Your task to perform on an android device: Open Yahoo.com Image 0: 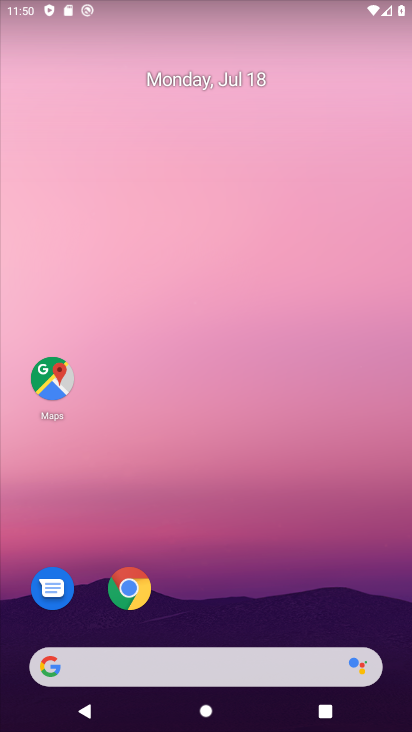
Step 0: drag from (265, 584) to (121, 169)
Your task to perform on an android device: Open Yahoo.com Image 1: 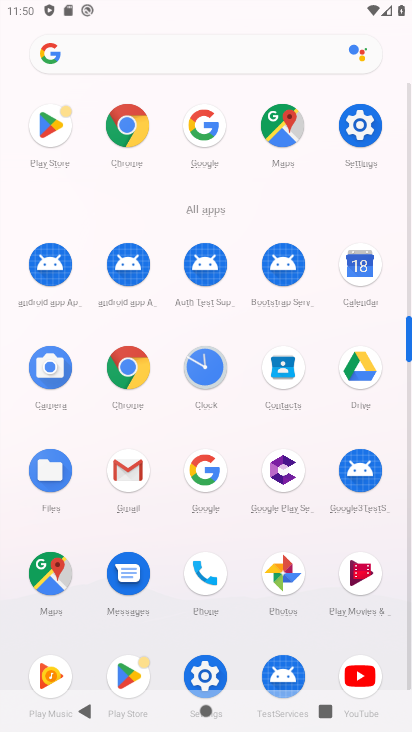
Step 1: click (128, 111)
Your task to perform on an android device: Open Yahoo.com Image 2: 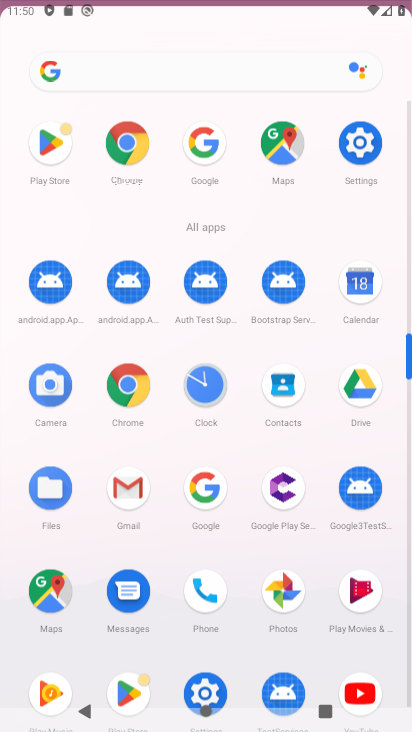
Step 2: click (129, 135)
Your task to perform on an android device: Open Yahoo.com Image 3: 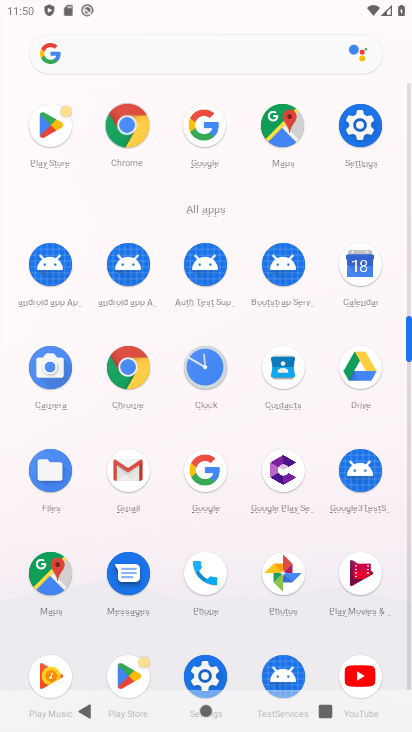
Step 3: click (129, 135)
Your task to perform on an android device: Open Yahoo.com Image 4: 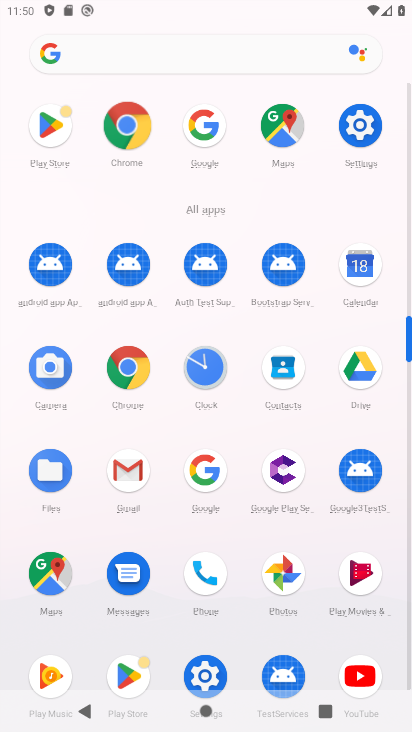
Step 4: click (129, 135)
Your task to perform on an android device: Open Yahoo.com Image 5: 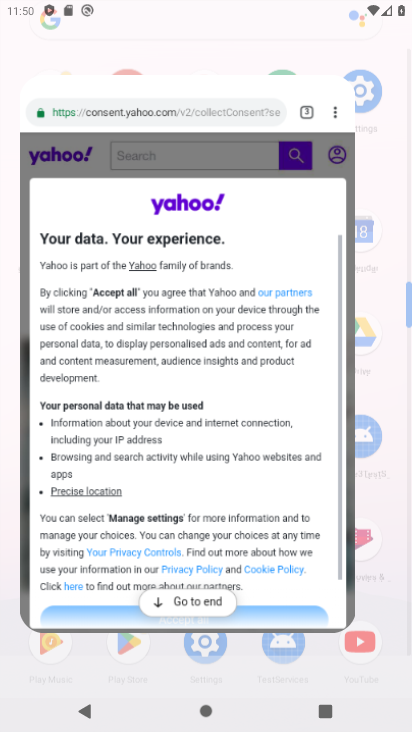
Step 5: click (129, 134)
Your task to perform on an android device: Open Yahoo.com Image 6: 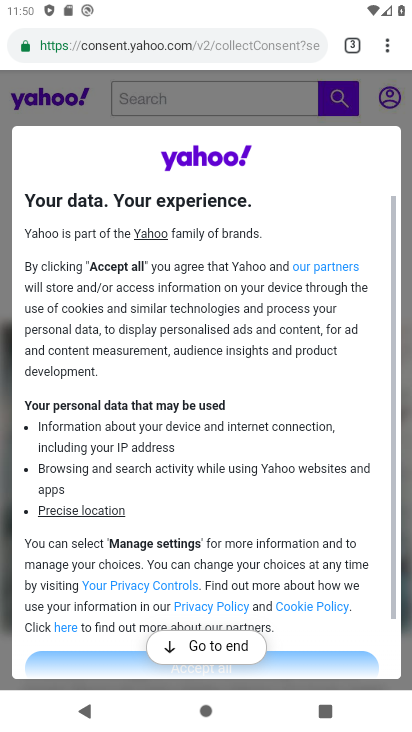
Step 6: task complete